Your task to perform on an android device: Open settings on Google Maps Image 0: 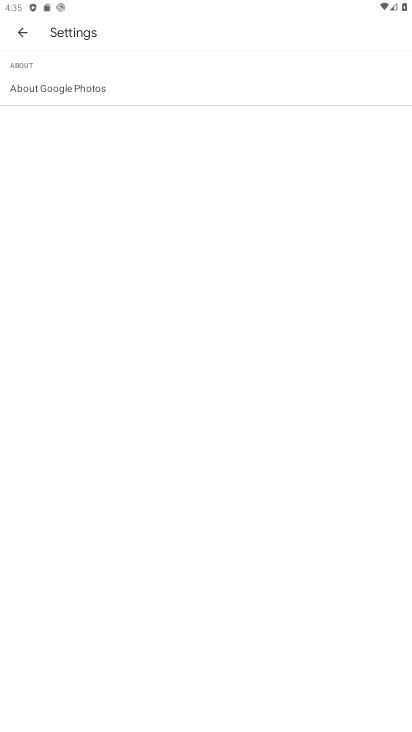
Step 0: press back button
Your task to perform on an android device: Open settings on Google Maps Image 1: 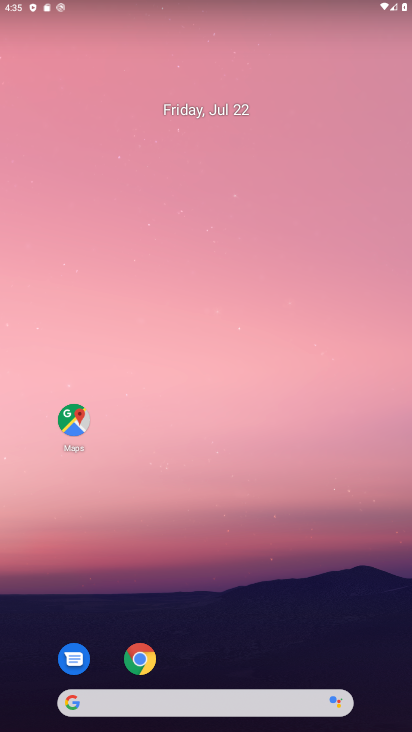
Step 1: click (73, 415)
Your task to perform on an android device: Open settings on Google Maps Image 2: 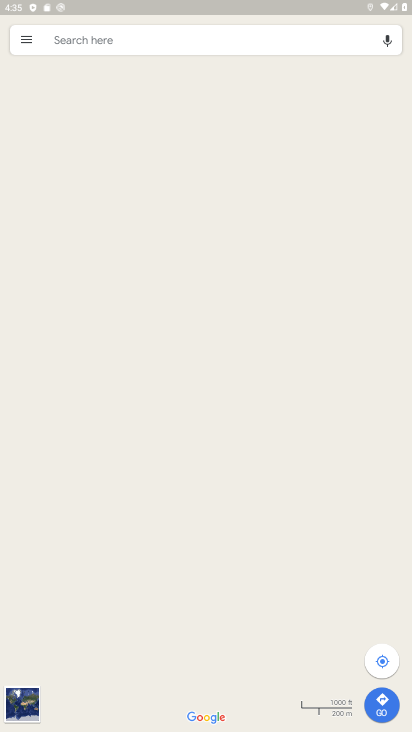
Step 2: click (28, 38)
Your task to perform on an android device: Open settings on Google Maps Image 3: 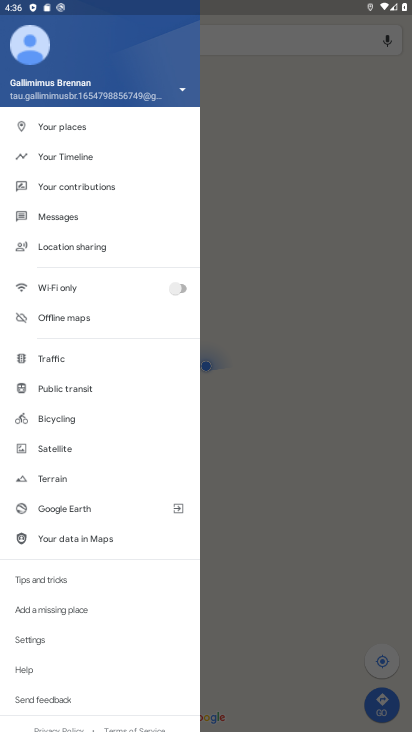
Step 3: click (61, 644)
Your task to perform on an android device: Open settings on Google Maps Image 4: 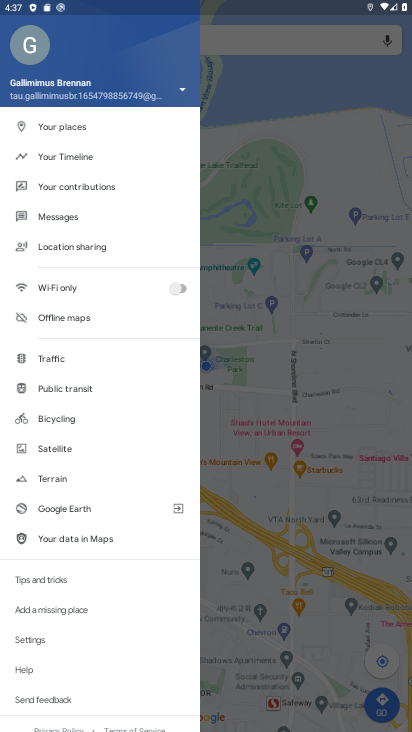
Step 4: click (69, 638)
Your task to perform on an android device: Open settings on Google Maps Image 5: 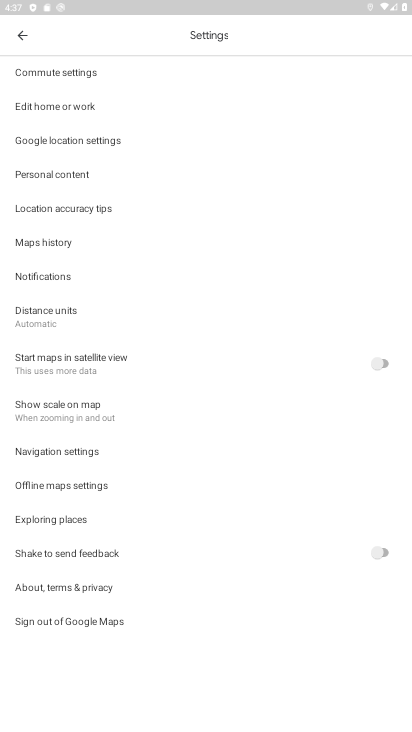
Step 5: task complete